Your task to perform on an android device: allow cookies in the chrome app Image 0: 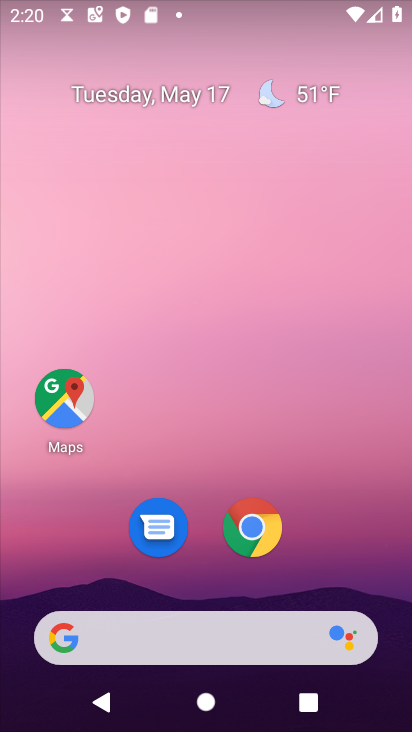
Step 0: click (249, 526)
Your task to perform on an android device: allow cookies in the chrome app Image 1: 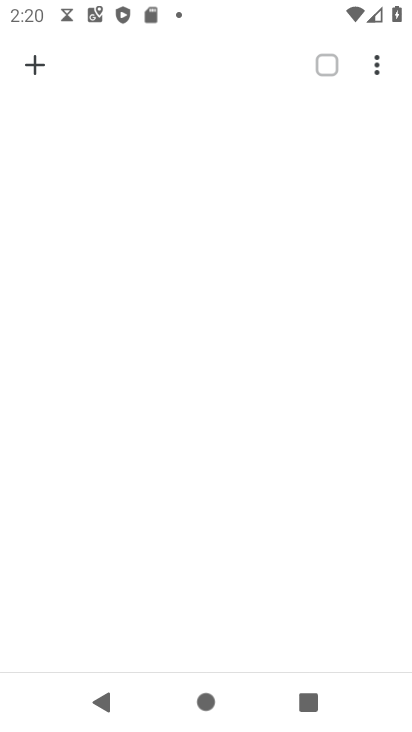
Step 1: click (378, 65)
Your task to perform on an android device: allow cookies in the chrome app Image 2: 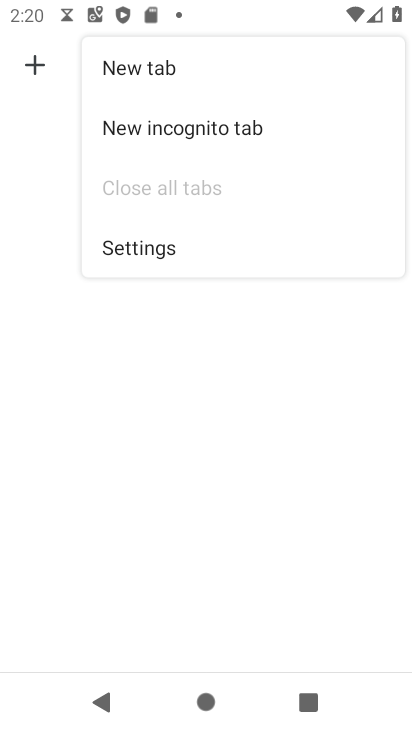
Step 2: click (156, 251)
Your task to perform on an android device: allow cookies in the chrome app Image 3: 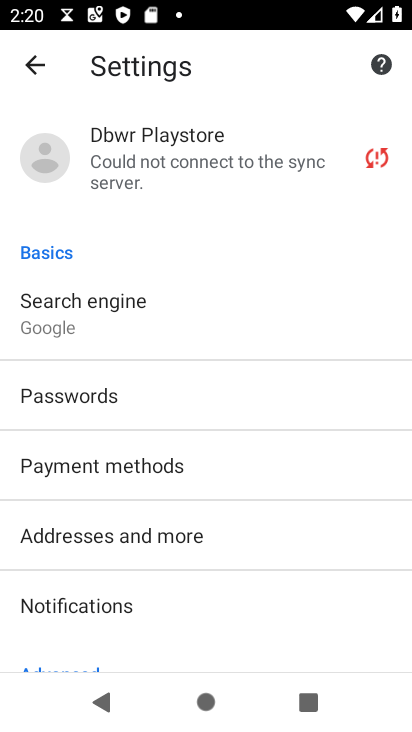
Step 3: drag from (139, 593) to (218, 476)
Your task to perform on an android device: allow cookies in the chrome app Image 4: 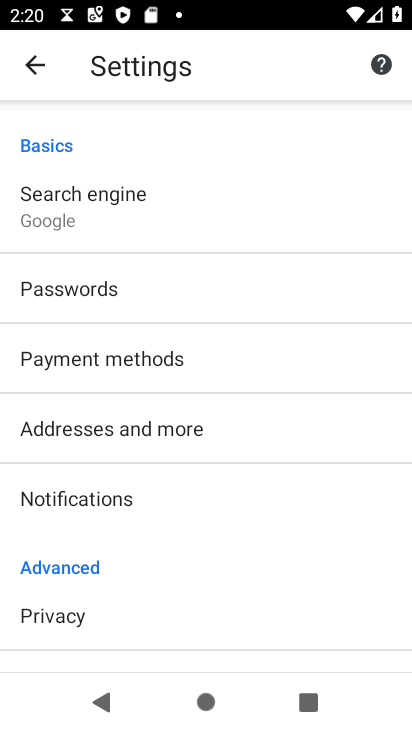
Step 4: drag from (187, 556) to (221, 483)
Your task to perform on an android device: allow cookies in the chrome app Image 5: 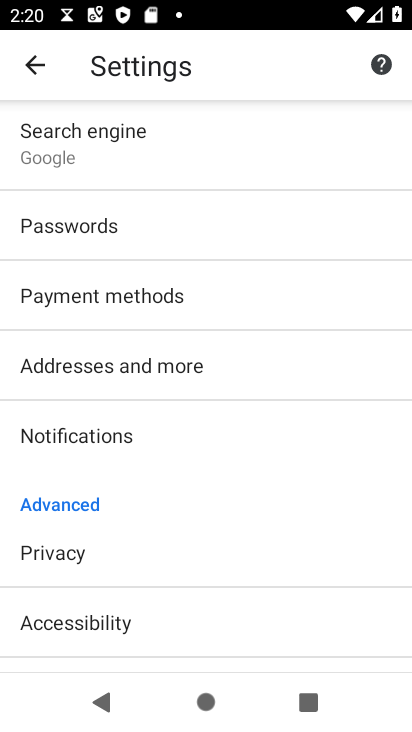
Step 5: drag from (143, 500) to (192, 404)
Your task to perform on an android device: allow cookies in the chrome app Image 6: 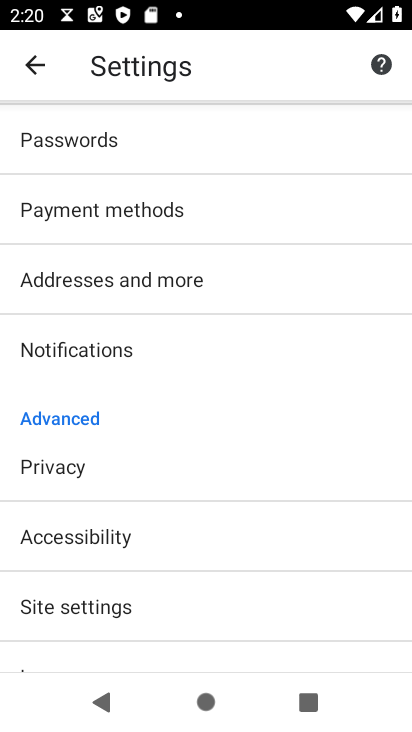
Step 6: drag from (165, 514) to (207, 414)
Your task to perform on an android device: allow cookies in the chrome app Image 7: 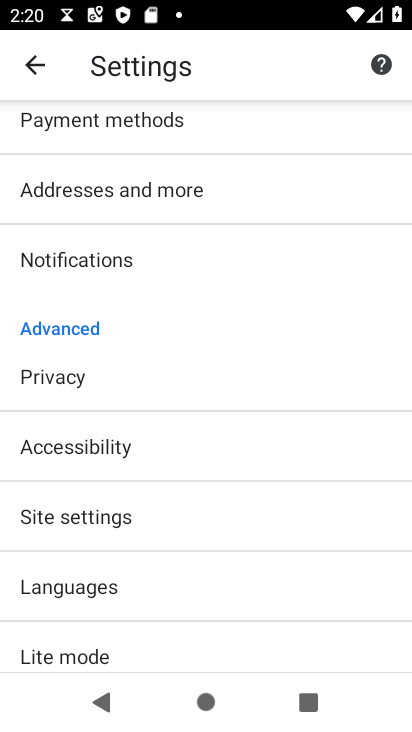
Step 7: click (109, 520)
Your task to perform on an android device: allow cookies in the chrome app Image 8: 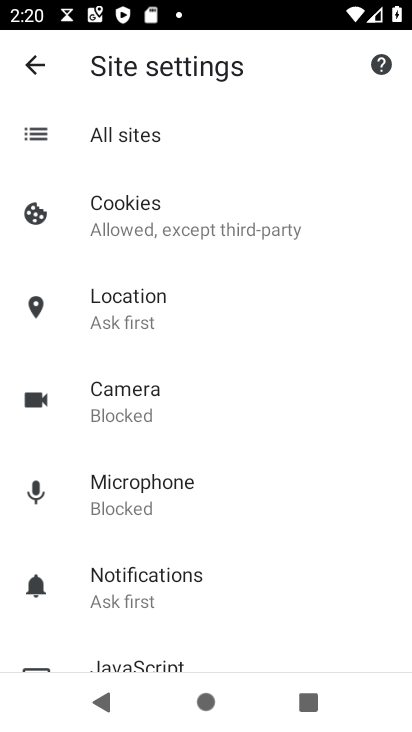
Step 8: drag from (177, 355) to (214, 288)
Your task to perform on an android device: allow cookies in the chrome app Image 9: 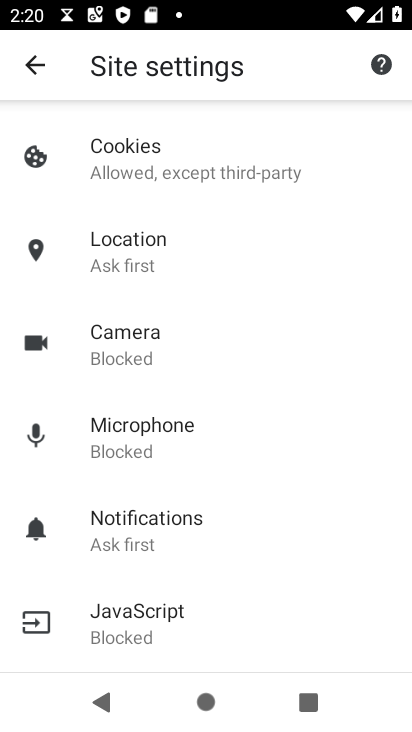
Step 9: click (195, 170)
Your task to perform on an android device: allow cookies in the chrome app Image 10: 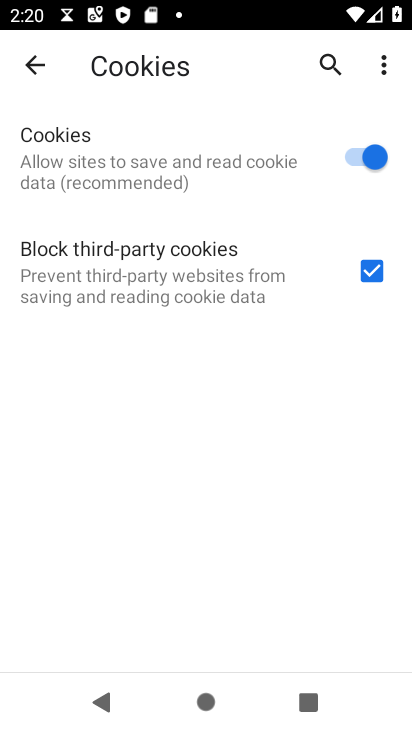
Step 10: task complete